Your task to perform on an android device: turn off translation in the chrome app Image 0: 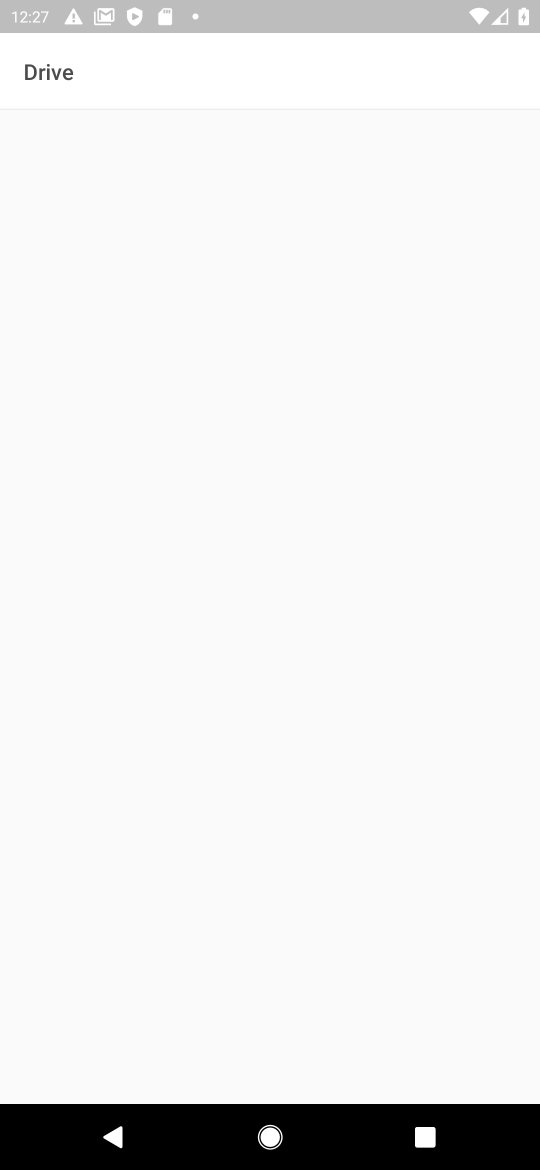
Step 0: press home button
Your task to perform on an android device: turn off translation in the chrome app Image 1: 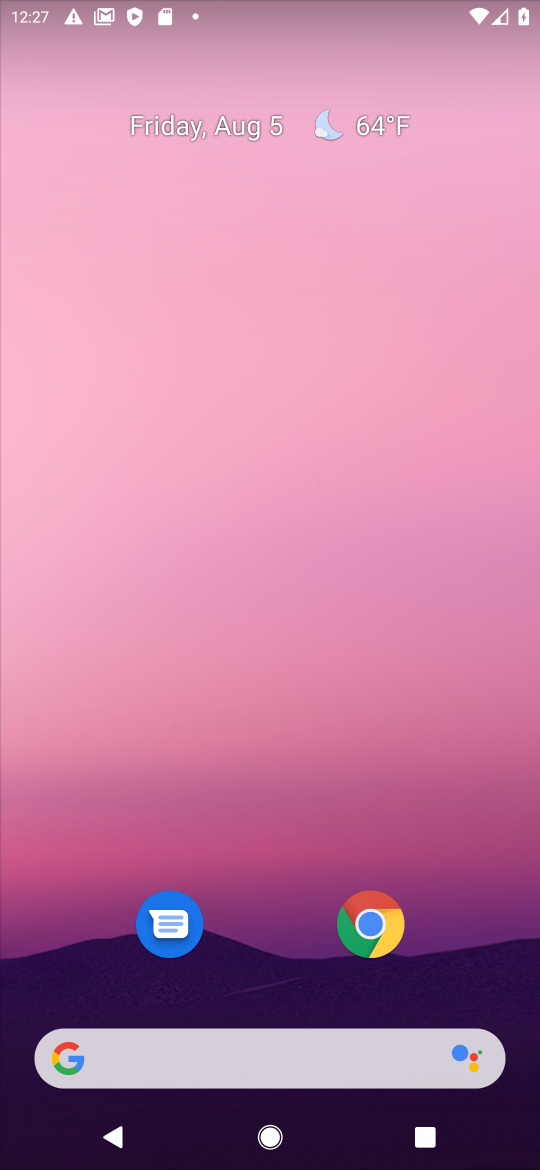
Step 1: click (375, 946)
Your task to perform on an android device: turn off translation in the chrome app Image 2: 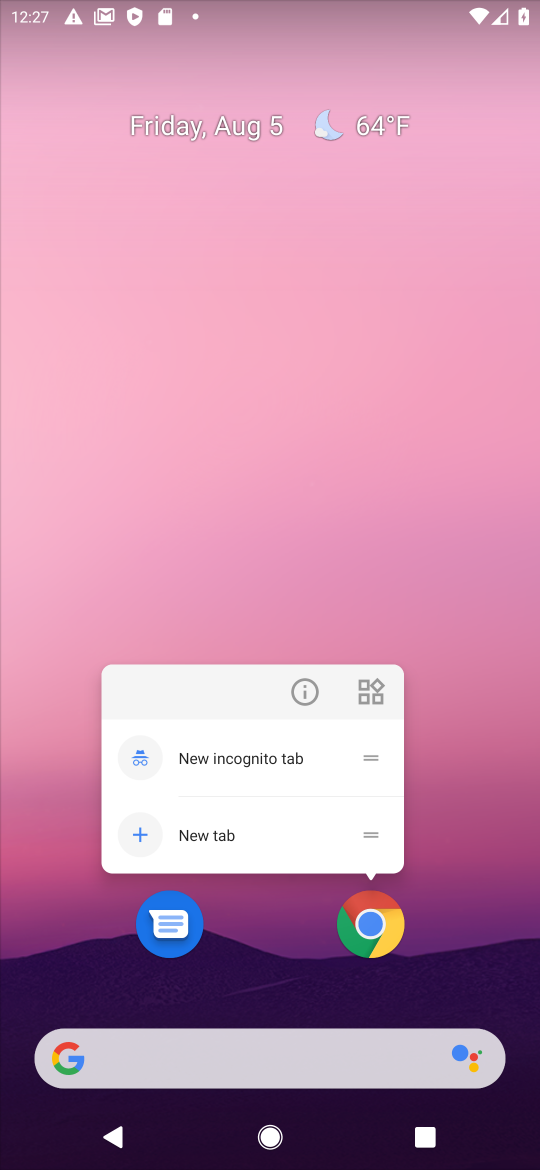
Step 2: click (375, 942)
Your task to perform on an android device: turn off translation in the chrome app Image 3: 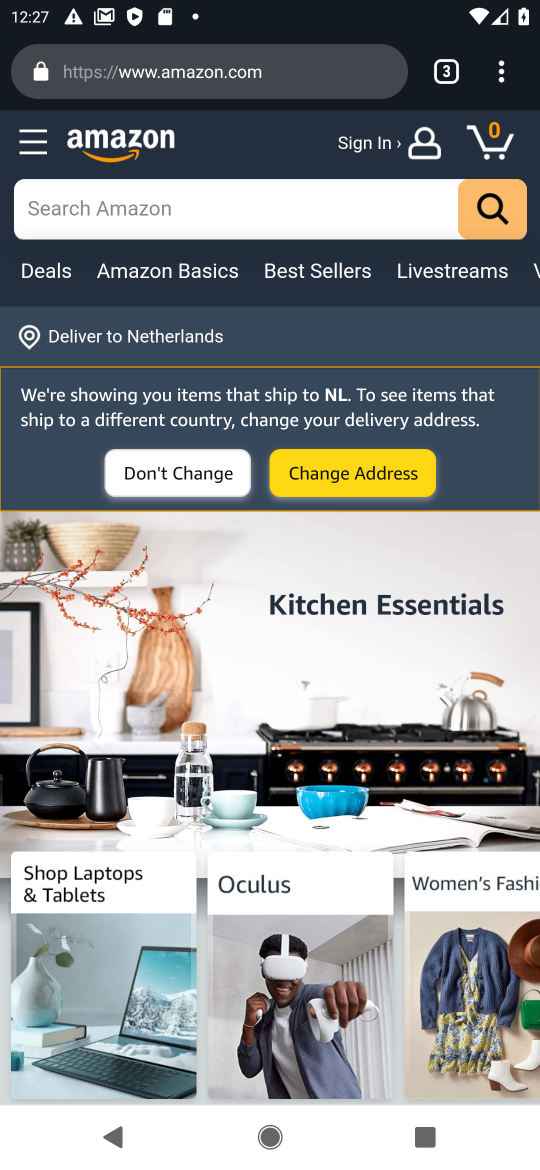
Step 3: drag from (487, 88) to (230, 862)
Your task to perform on an android device: turn off translation in the chrome app Image 4: 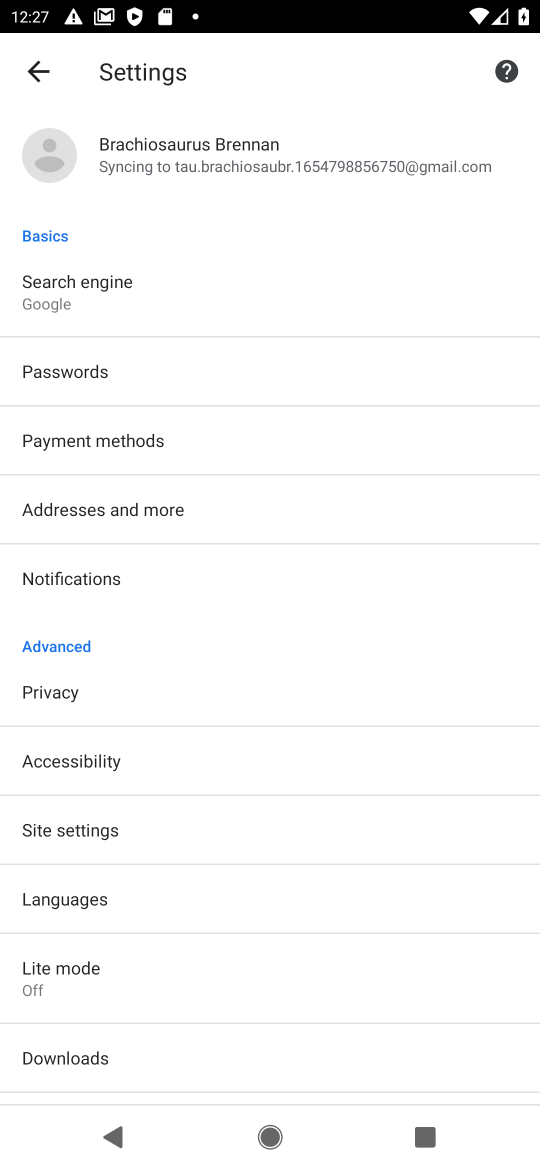
Step 4: click (60, 905)
Your task to perform on an android device: turn off translation in the chrome app Image 5: 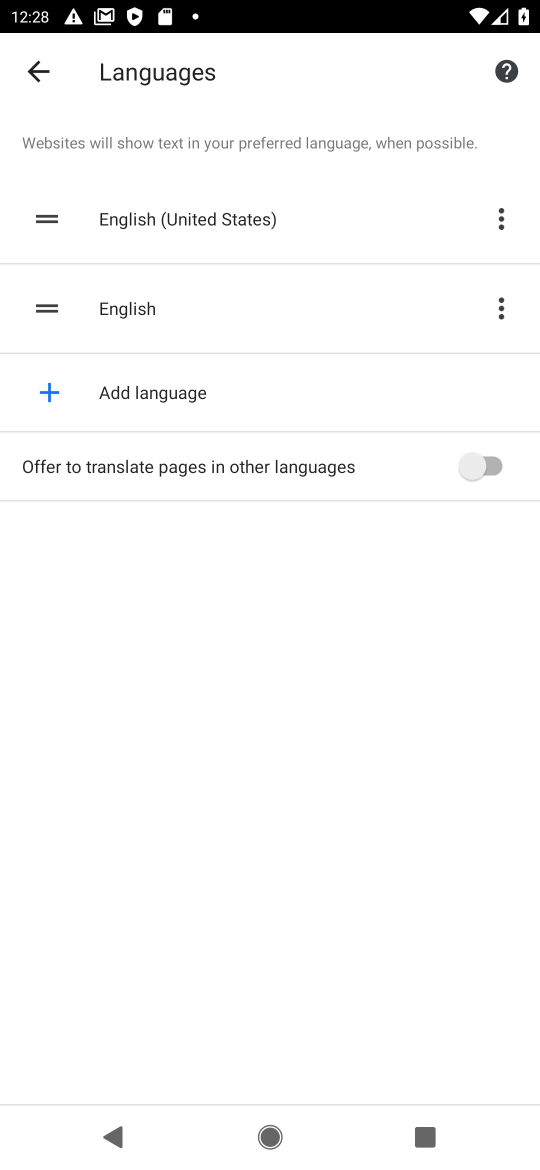
Step 5: task complete